Your task to perform on an android device: stop showing notifications on the lock screen Image 0: 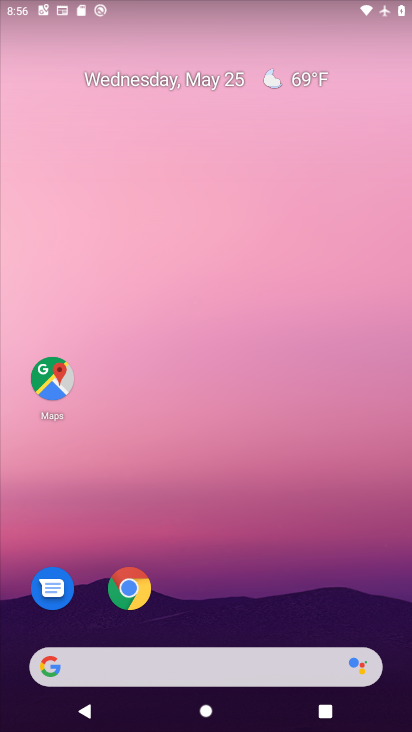
Step 0: drag from (352, 616) to (367, 170)
Your task to perform on an android device: stop showing notifications on the lock screen Image 1: 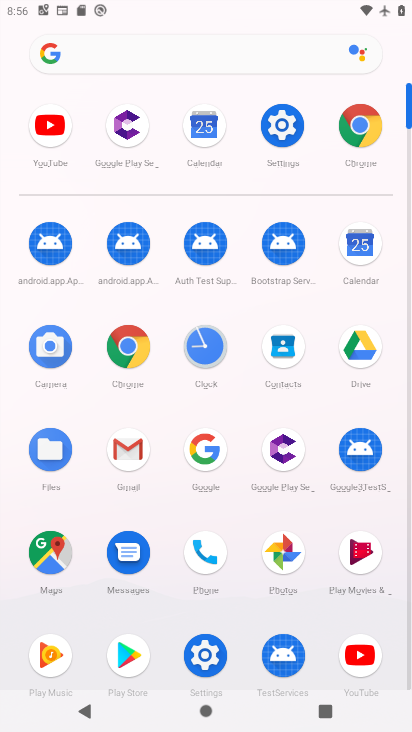
Step 1: click (279, 128)
Your task to perform on an android device: stop showing notifications on the lock screen Image 2: 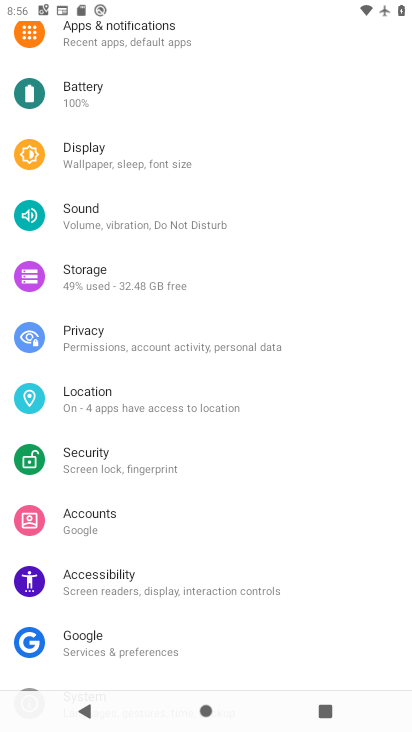
Step 2: drag from (335, 287) to (342, 378)
Your task to perform on an android device: stop showing notifications on the lock screen Image 3: 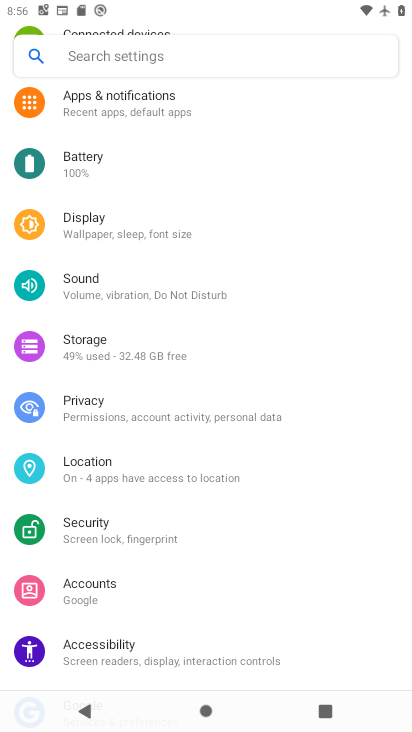
Step 3: drag from (347, 211) to (342, 326)
Your task to perform on an android device: stop showing notifications on the lock screen Image 4: 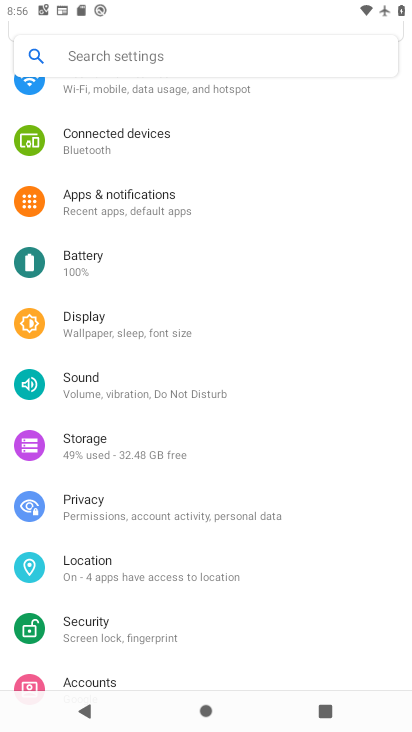
Step 4: drag from (329, 198) to (336, 305)
Your task to perform on an android device: stop showing notifications on the lock screen Image 5: 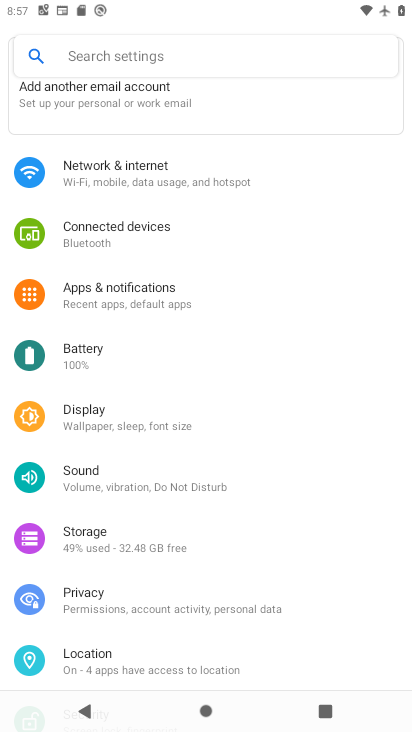
Step 5: drag from (343, 193) to (338, 348)
Your task to perform on an android device: stop showing notifications on the lock screen Image 6: 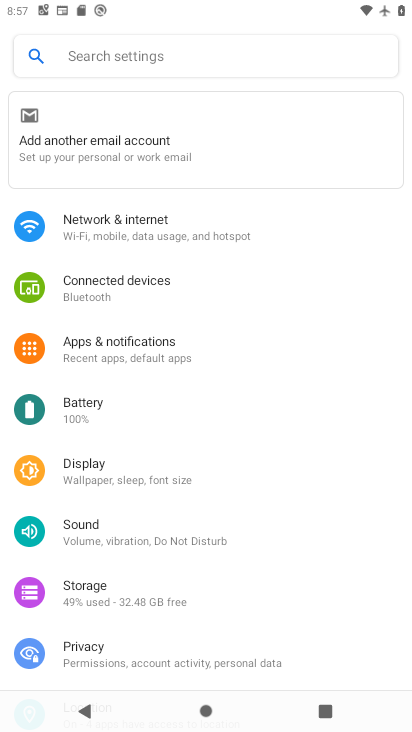
Step 6: click (175, 362)
Your task to perform on an android device: stop showing notifications on the lock screen Image 7: 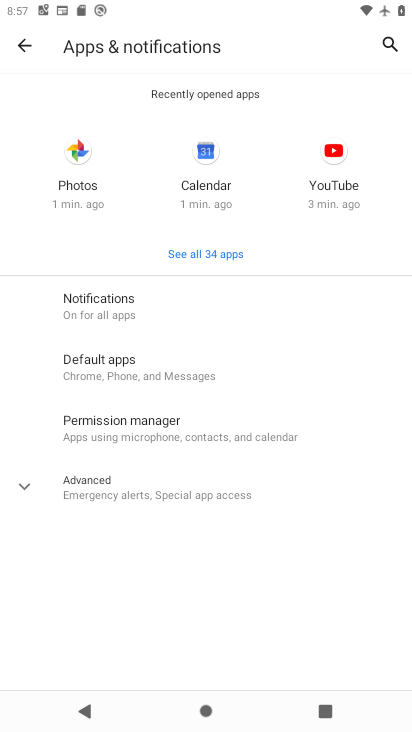
Step 7: click (154, 319)
Your task to perform on an android device: stop showing notifications on the lock screen Image 8: 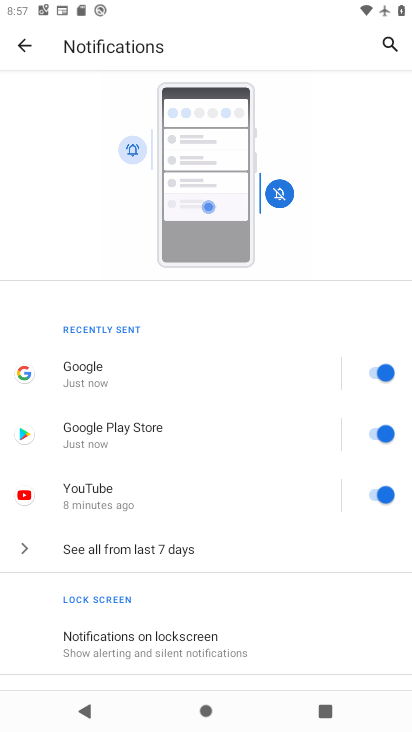
Step 8: drag from (255, 508) to (275, 386)
Your task to perform on an android device: stop showing notifications on the lock screen Image 9: 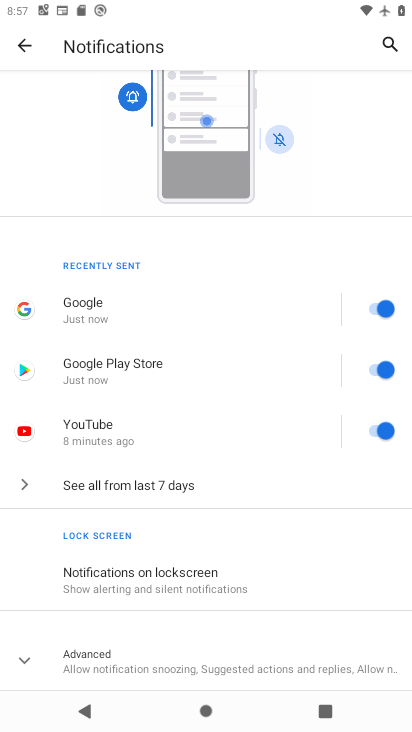
Step 9: click (236, 587)
Your task to perform on an android device: stop showing notifications on the lock screen Image 10: 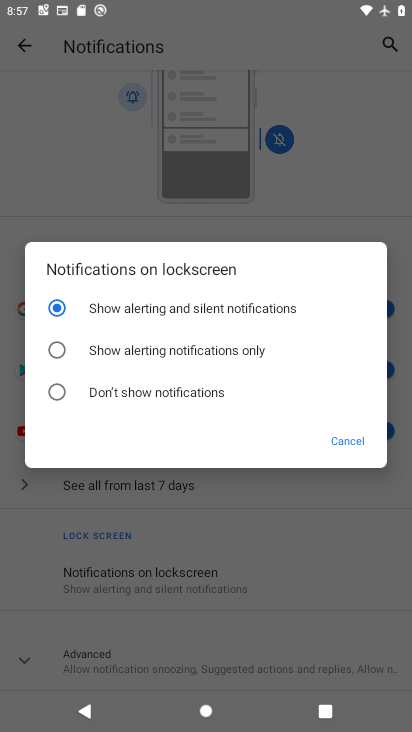
Step 10: click (165, 401)
Your task to perform on an android device: stop showing notifications on the lock screen Image 11: 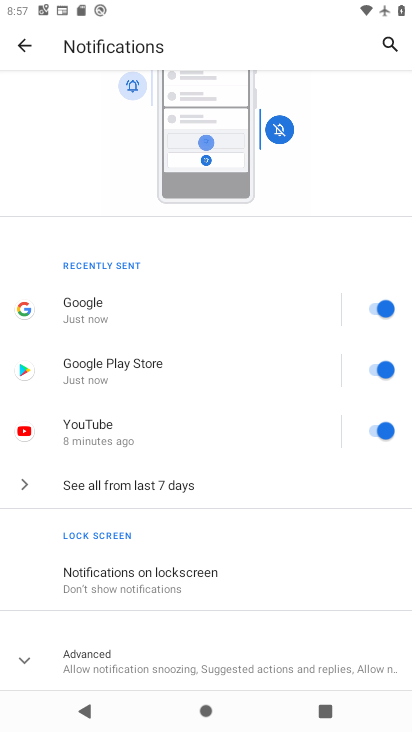
Step 11: task complete